Your task to perform on an android device: Clear all items from cart on target. Image 0: 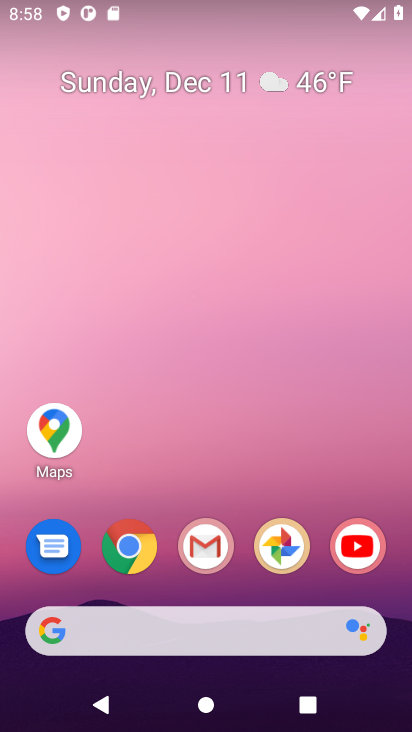
Step 0: click (127, 551)
Your task to perform on an android device: Clear all items from cart on target. Image 1: 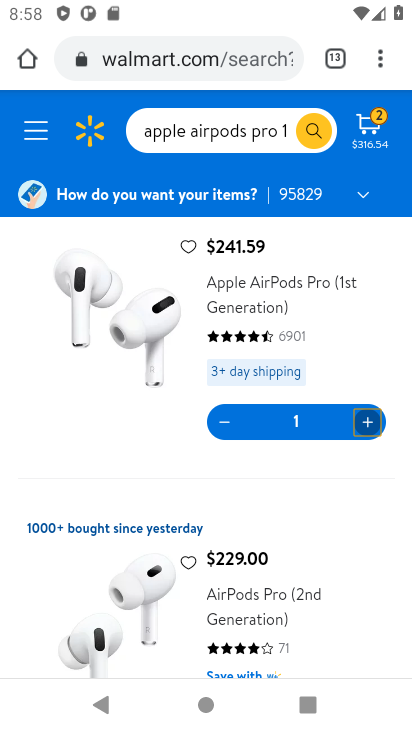
Step 1: click (172, 60)
Your task to perform on an android device: Clear all items from cart on target. Image 2: 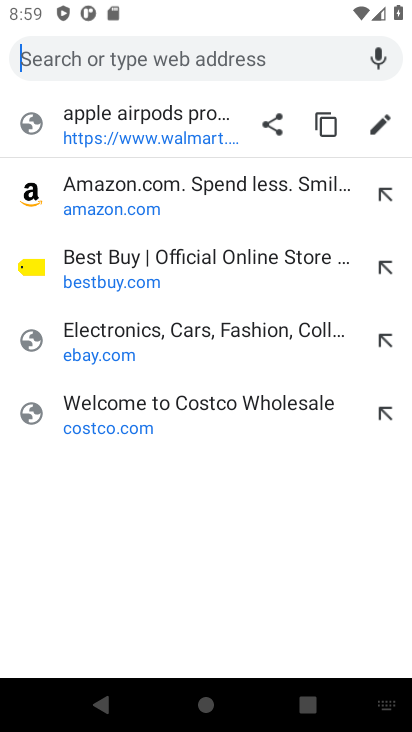
Step 2: type "target.com"
Your task to perform on an android device: Clear all items from cart on target. Image 3: 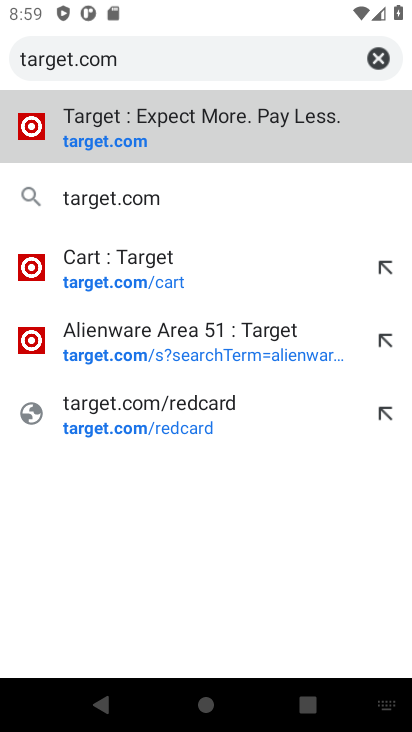
Step 3: click (111, 147)
Your task to perform on an android device: Clear all items from cart on target. Image 4: 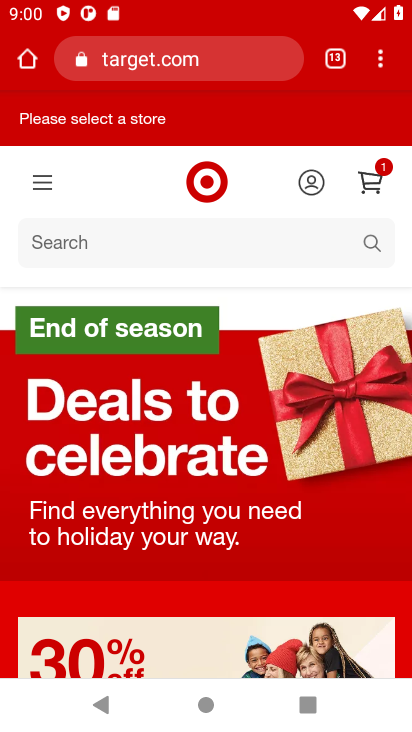
Step 4: click (374, 184)
Your task to perform on an android device: Clear all items from cart on target. Image 5: 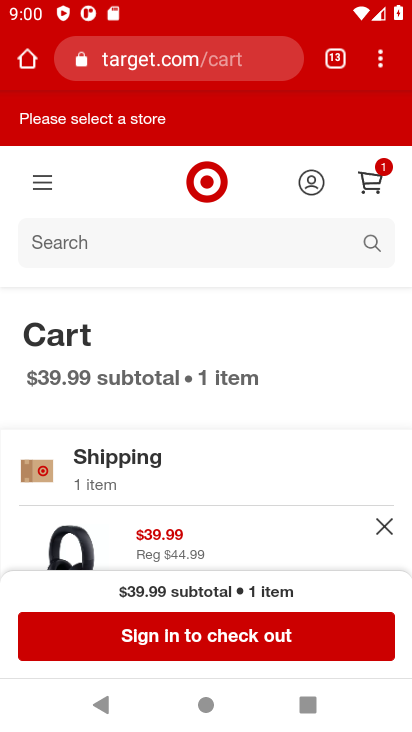
Step 5: drag from (217, 464) to (219, 261)
Your task to perform on an android device: Clear all items from cart on target. Image 6: 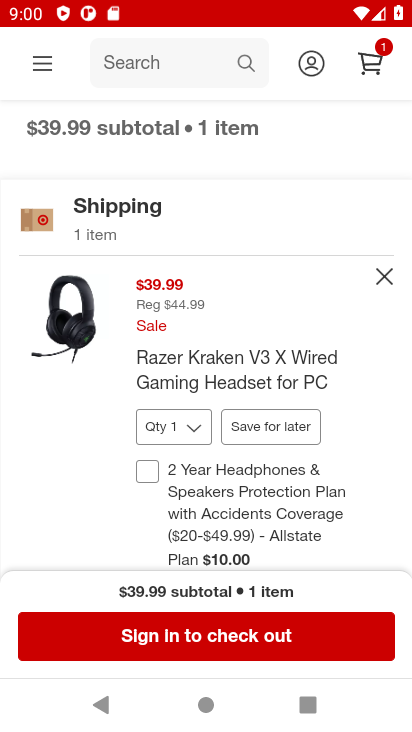
Step 6: click (381, 280)
Your task to perform on an android device: Clear all items from cart on target. Image 7: 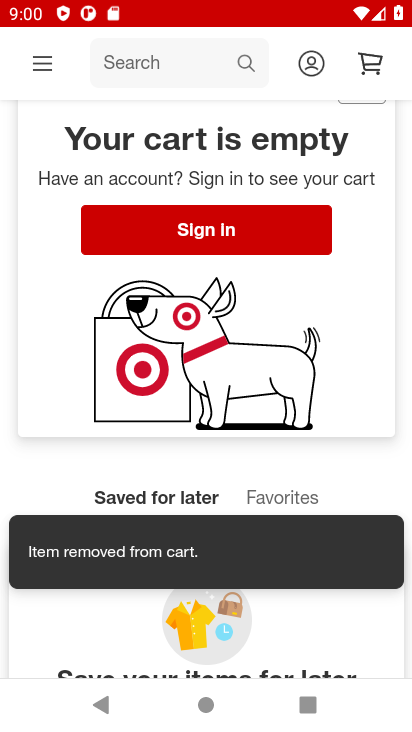
Step 7: task complete